Your task to perform on an android device: Open Google Maps Image 0: 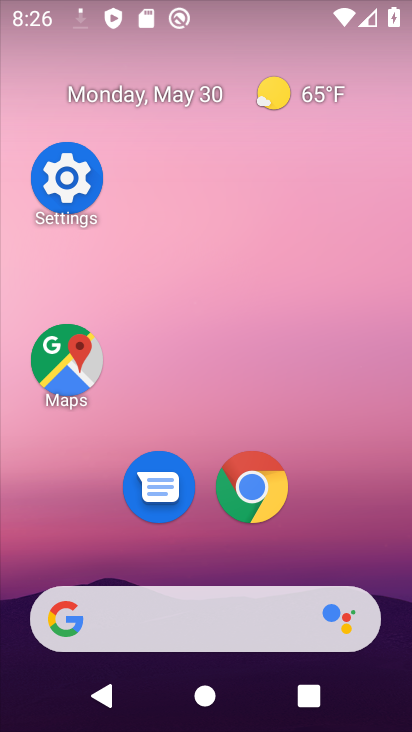
Step 0: click (68, 359)
Your task to perform on an android device: Open Google Maps Image 1: 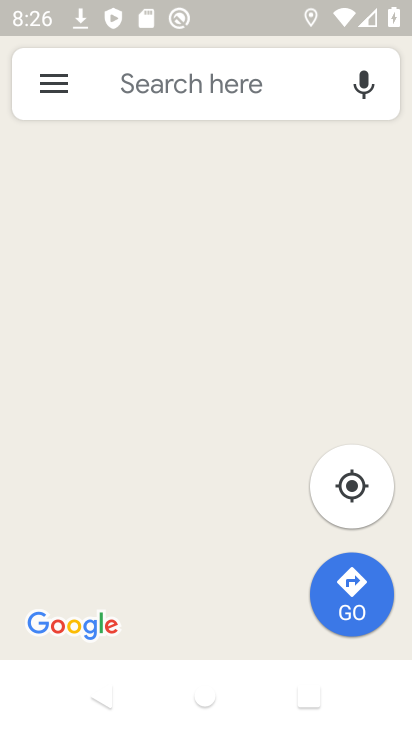
Step 1: task complete